Your task to perform on an android device: Clear the cart on target. Image 0: 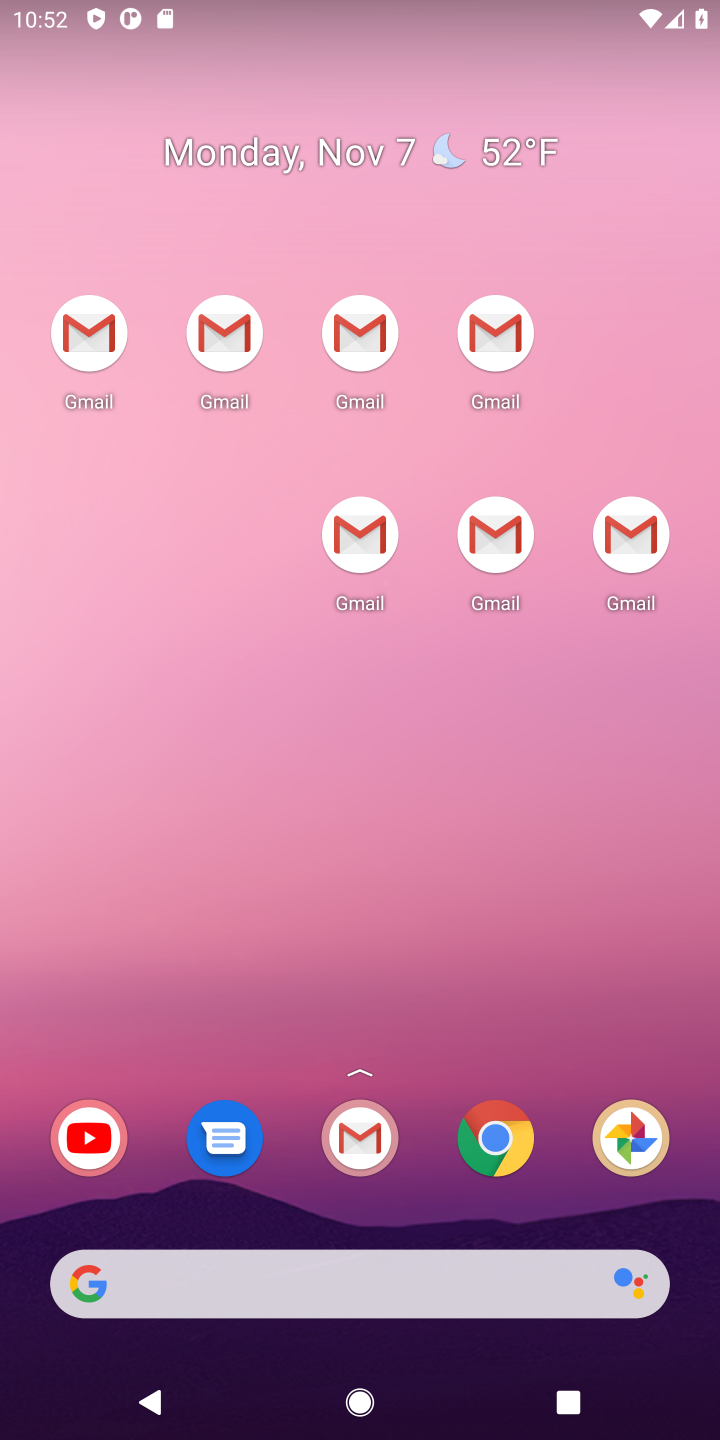
Step 0: drag from (400, 1208) to (449, 590)
Your task to perform on an android device: Clear the cart on target. Image 1: 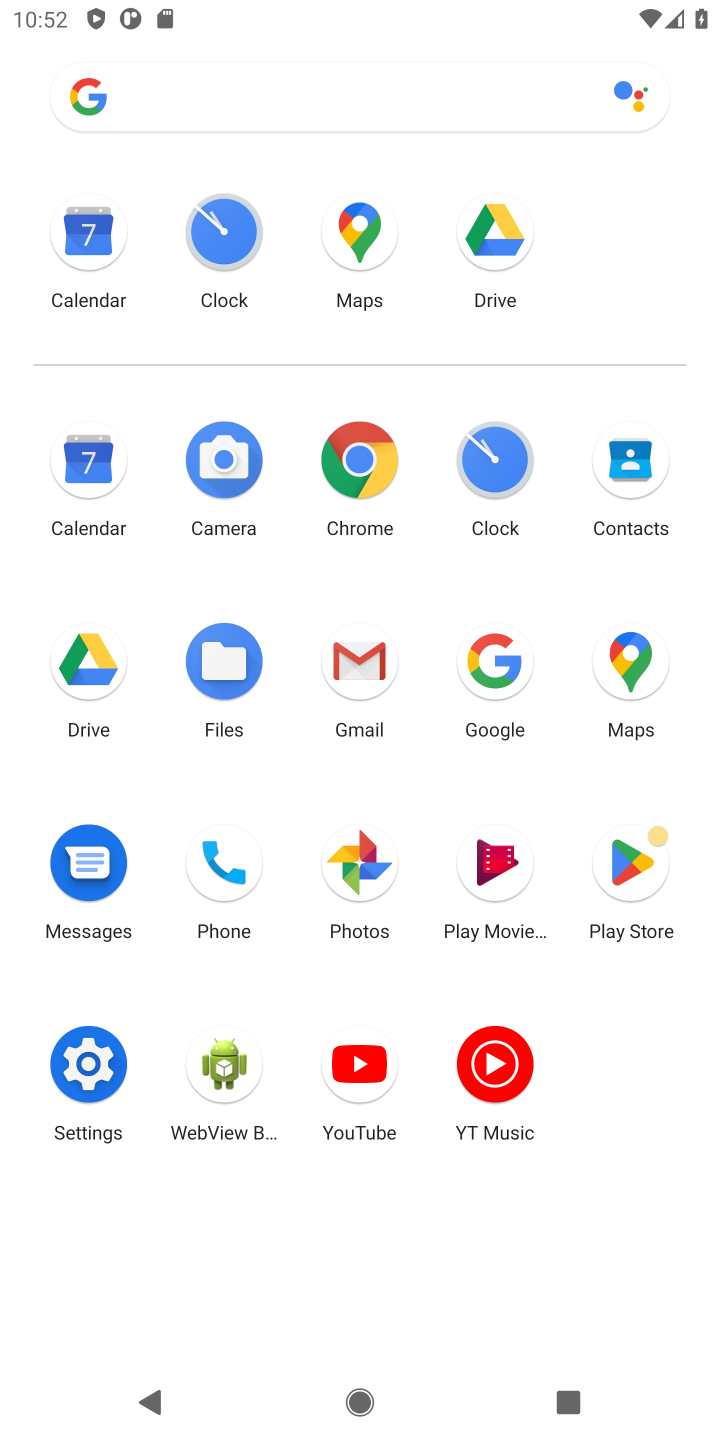
Step 1: click (501, 692)
Your task to perform on an android device: Clear the cart on target. Image 2: 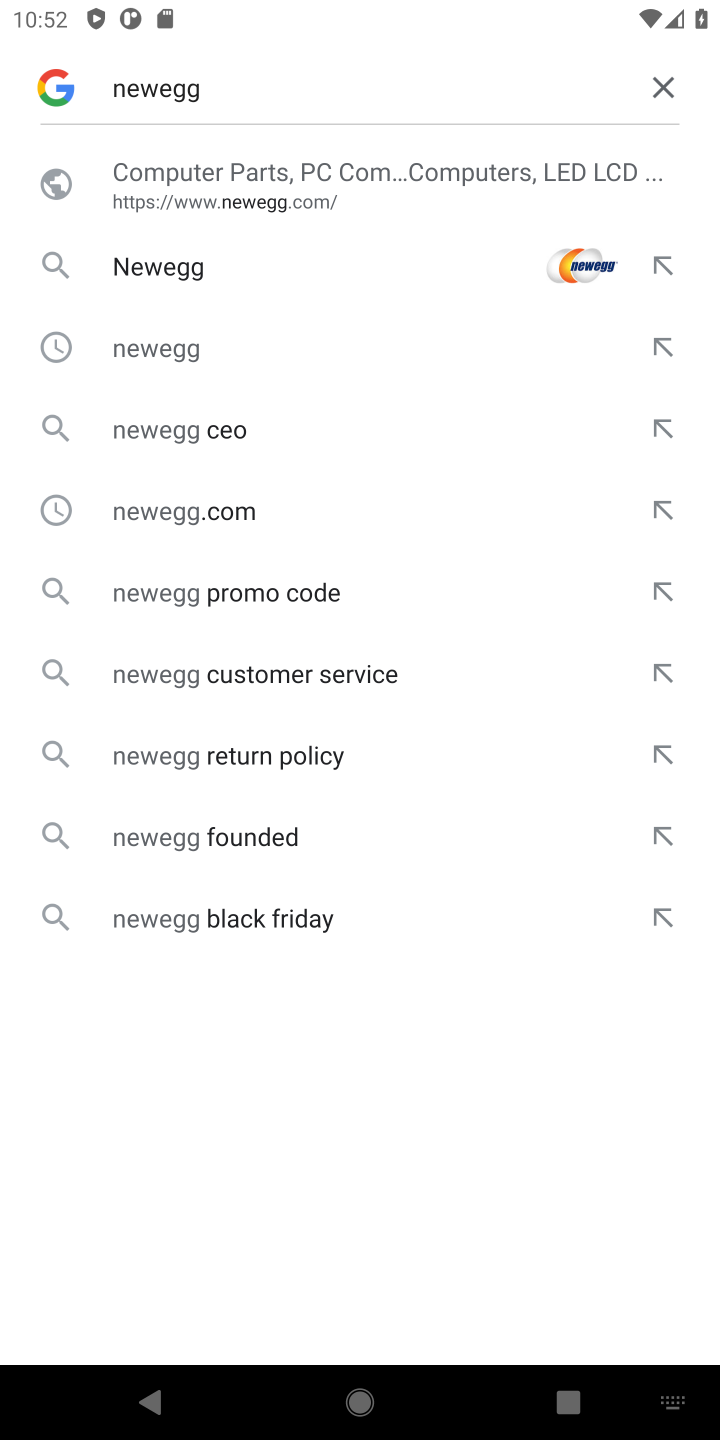
Step 2: click (657, 102)
Your task to perform on an android device: Clear the cart on target. Image 3: 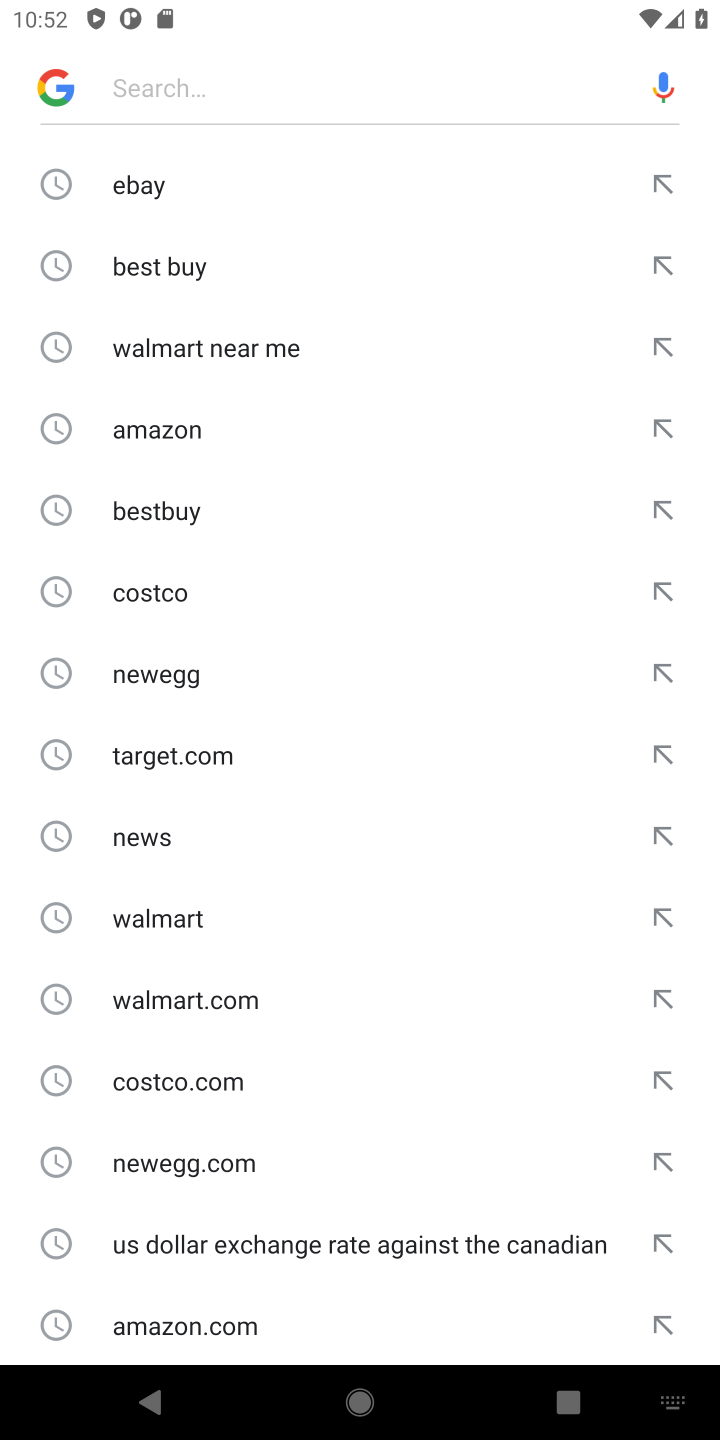
Step 3: click (196, 743)
Your task to perform on an android device: Clear the cart on target. Image 4: 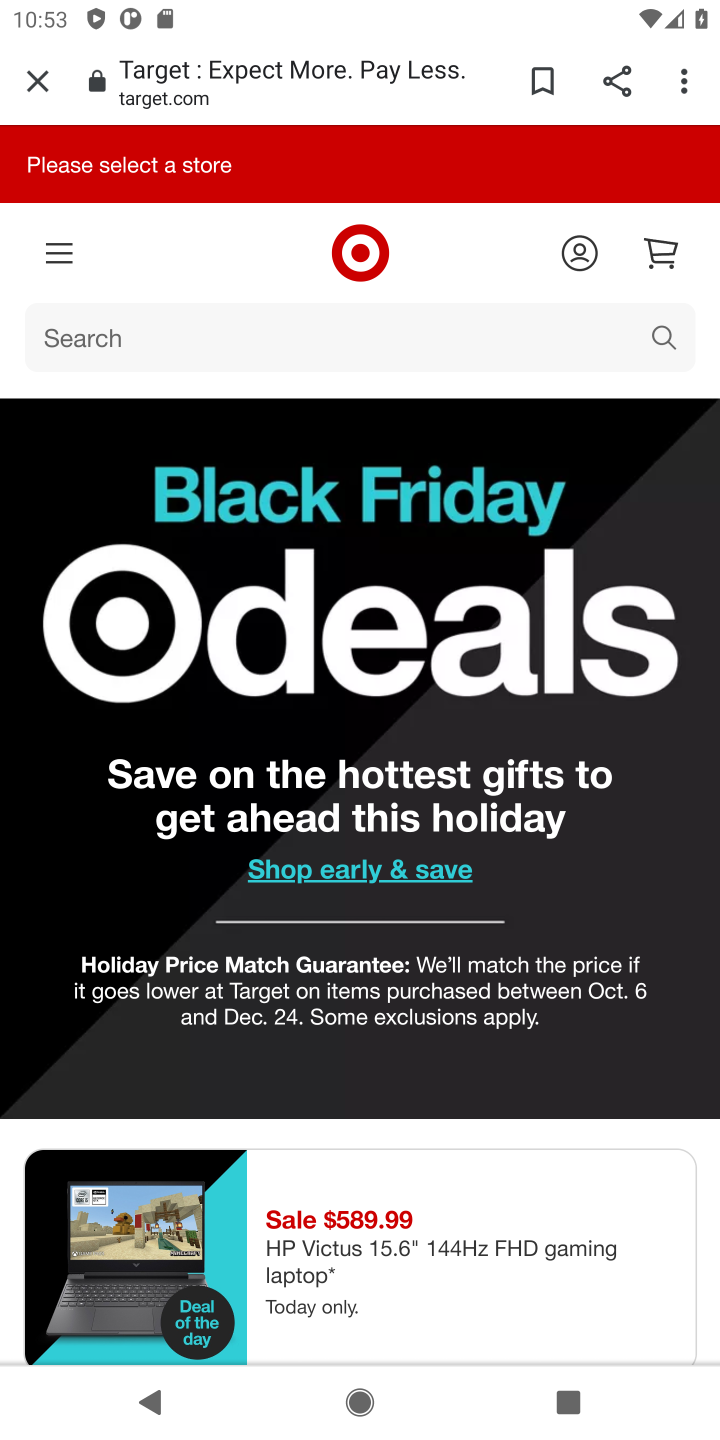
Step 4: click (649, 255)
Your task to perform on an android device: Clear the cart on target. Image 5: 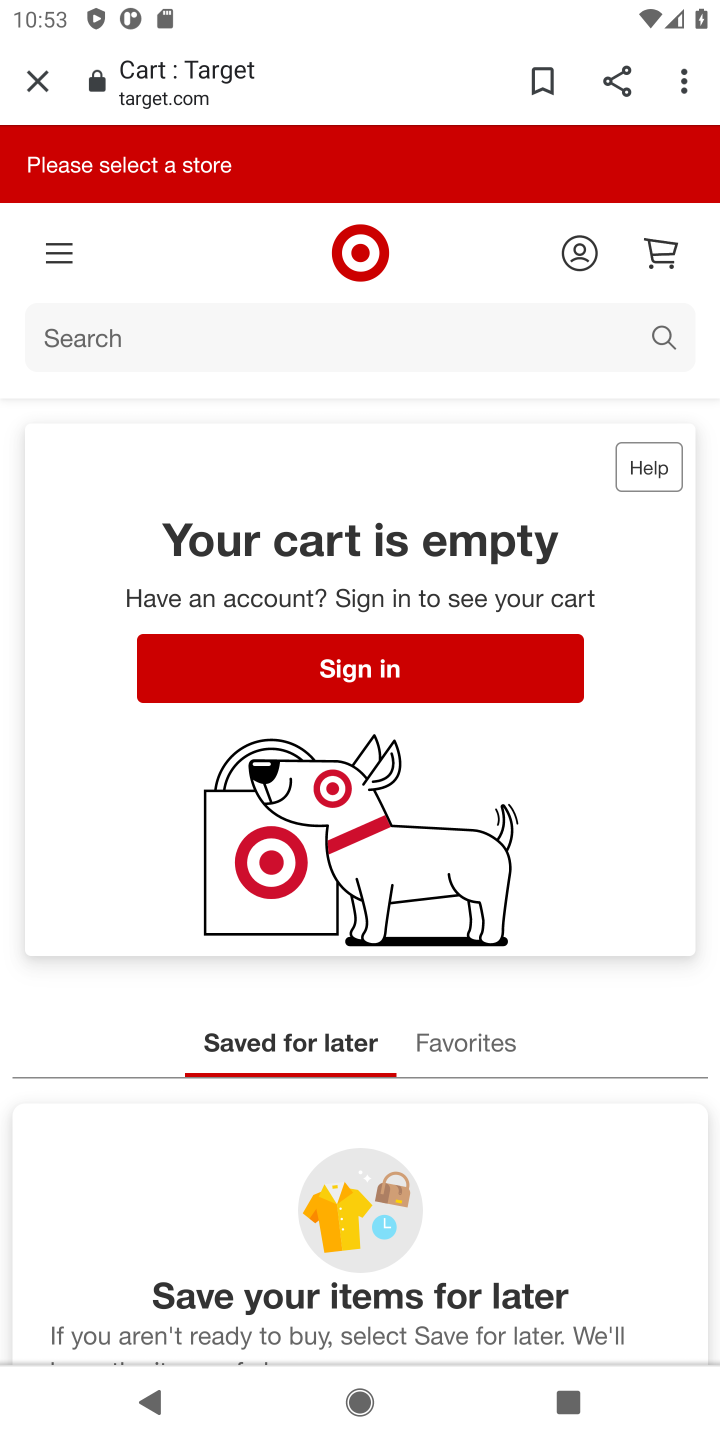
Step 5: task complete